Your task to perform on an android device: delete browsing data in the chrome app Image 0: 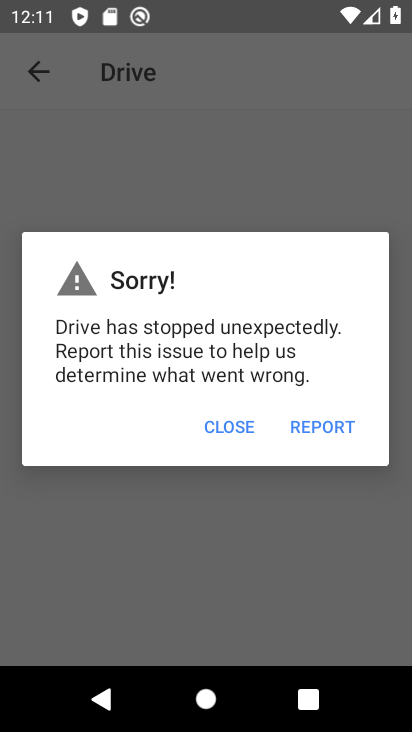
Step 0: click (234, 430)
Your task to perform on an android device: delete browsing data in the chrome app Image 1: 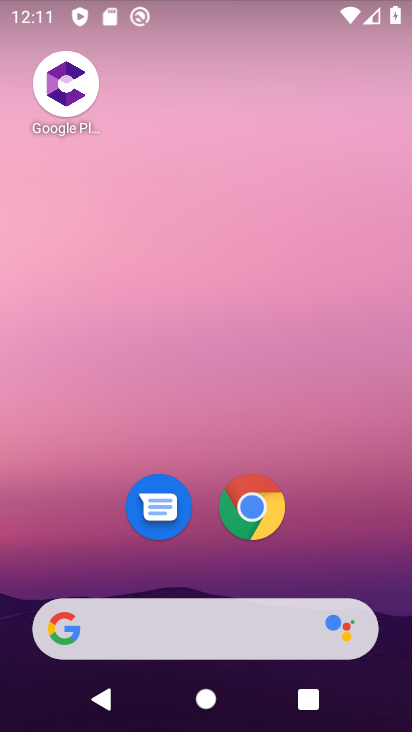
Step 1: click (257, 509)
Your task to perform on an android device: delete browsing data in the chrome app Image 2: 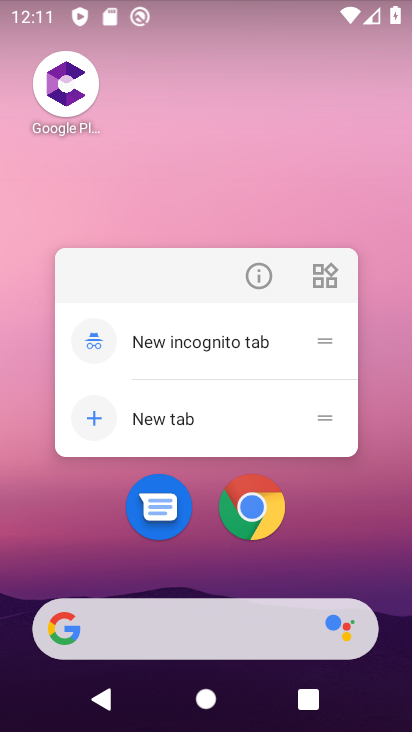
Step 2: click (257, 509)
Your task to perform on an android device: delete browsing data in the chrome app Image 3: 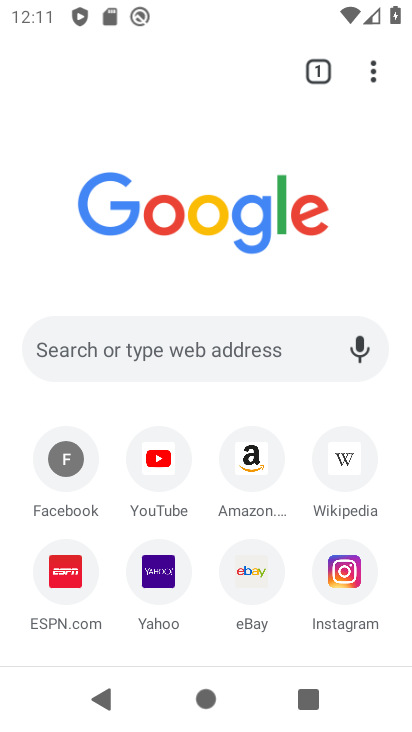
Step 3: click (377, 71)
Your task to perform on an android device: delete browsing data in the chrome app Image 4: 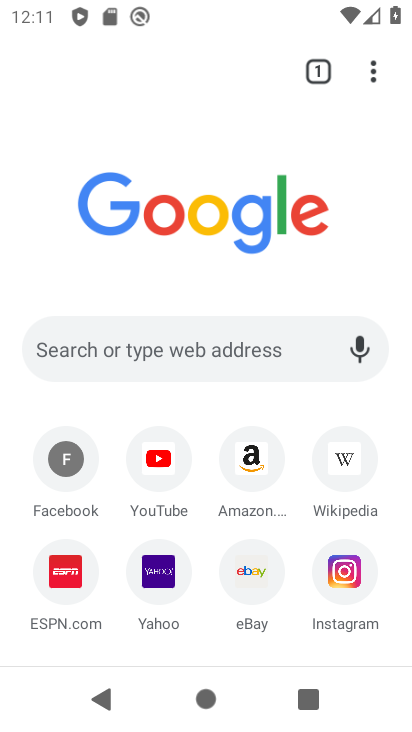
Step 4: click (372, 67)
Your task to perform on an android device: delete browsing data in the chrome app Image 5: 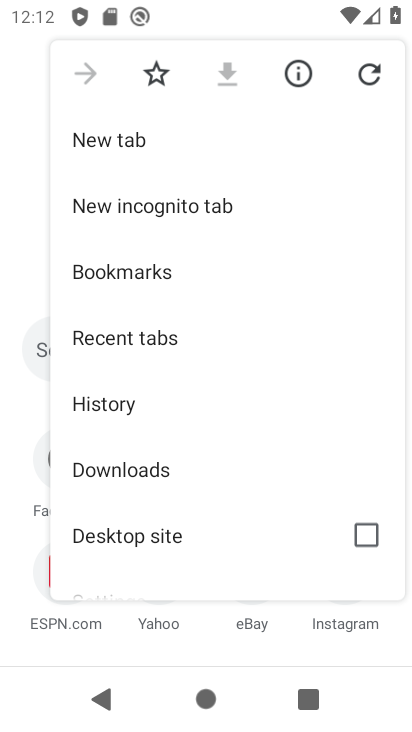
Step 5: drag from (204, 518) to (243, 166)
Your task to perform on an android device: delete browsing data in the chrome app Image 6: 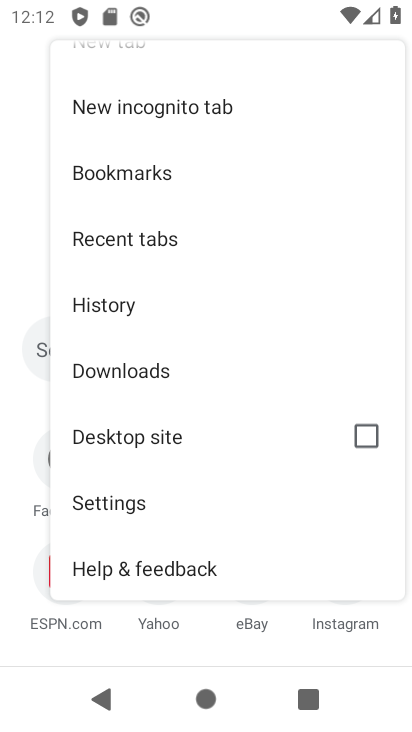
Step 6: click (114, 508)
Your task to perform on an android device: delete browsing data in the chrome app Image 7: 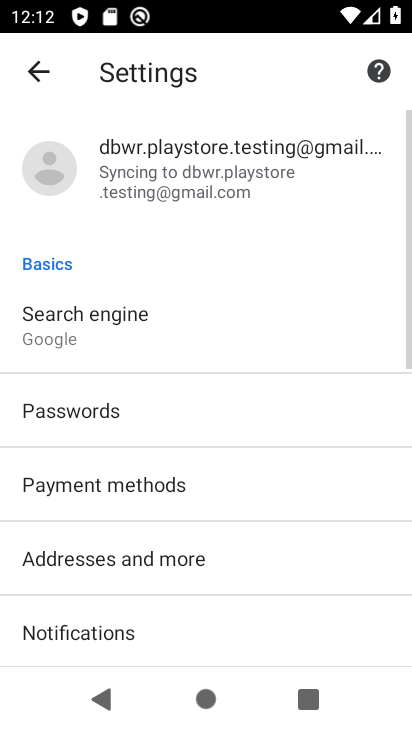
Step 7: drag from (127, 652) to (185, 296)
Your task to perform on an android device: delete browsing data in the chrome app Image 8: 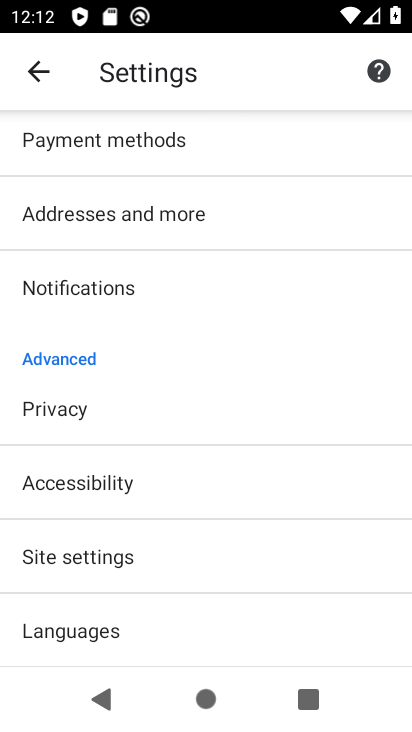
Step 8: click (59, 407)
Your task to perform on an android device: delete browsing data in the chrome app Image 9: 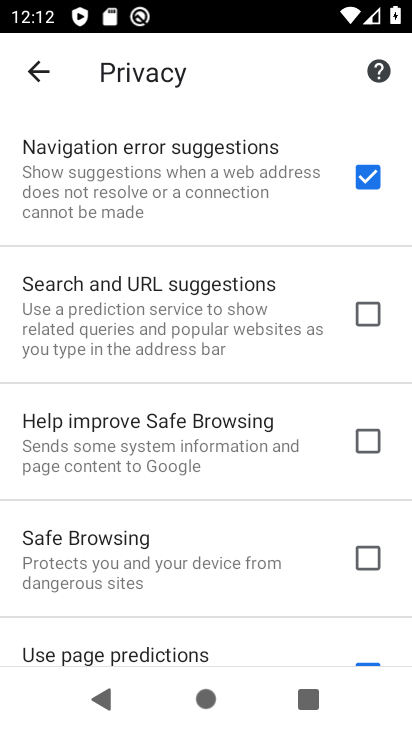
Step 9: drag from (203, 636) to (261, 258)
Your task to perform on an android device: delete browsing data in the chrome app Image 10: 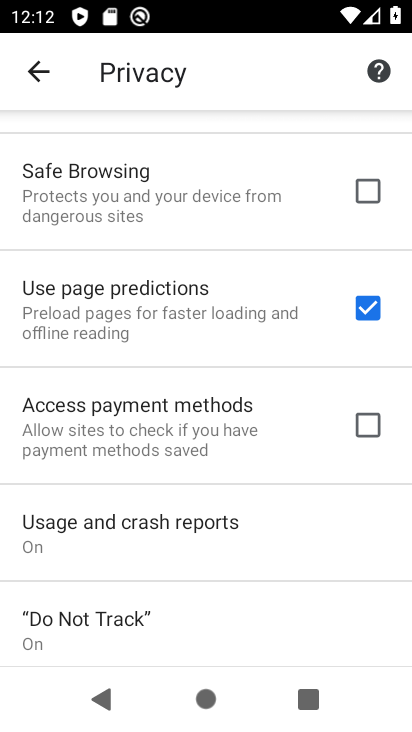
Step 10: drag from (136, 633) to (171, 286)
Your task to perform on an android device: delete browsing data in the chrome app Image 11: 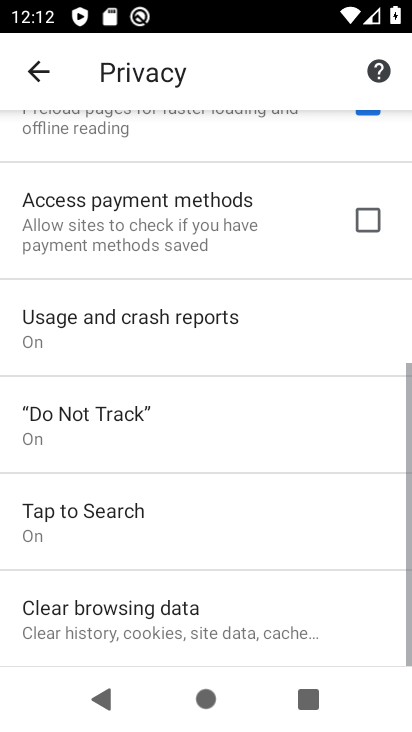
Step 11: click (164, 614)
Your task to perform on an android device: delete browsing data in the chrome app Image 12: 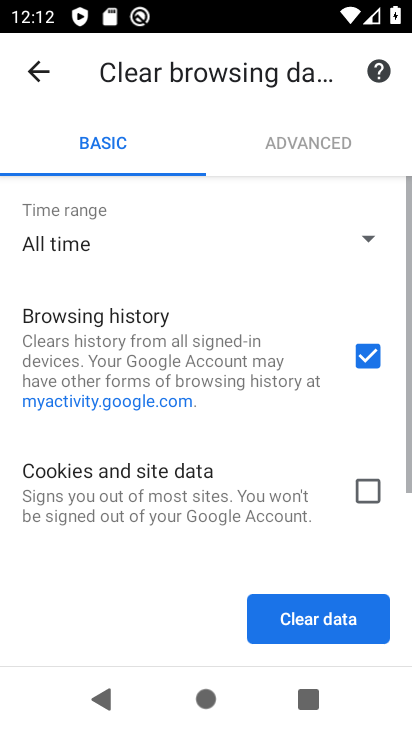
Step 12: click (370, 485)
Your task to perform on an android device: delete browsing data in the chrome app Image 13: 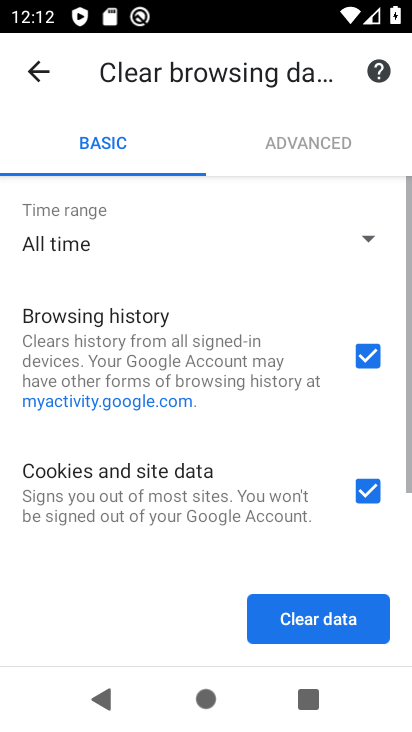
Step 13: drag from (233, 531) to (272, 183)
Your task to perform on an android device: delete browsing data in the chrome app Image 14: 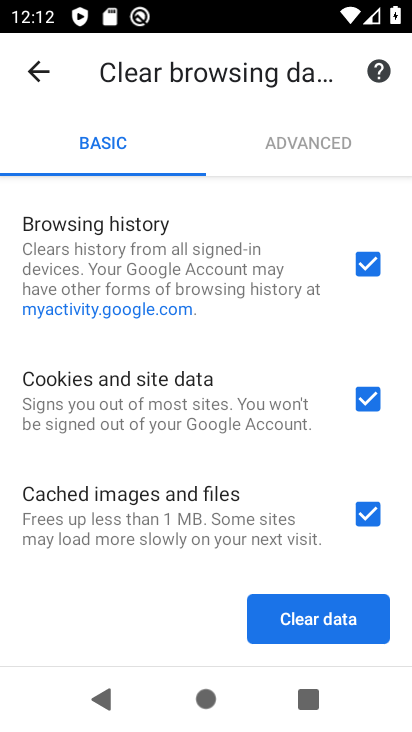
Step 14: click (314, 621)
Your task to perform on an android device: delete browsing data in the chrome app Image 15: 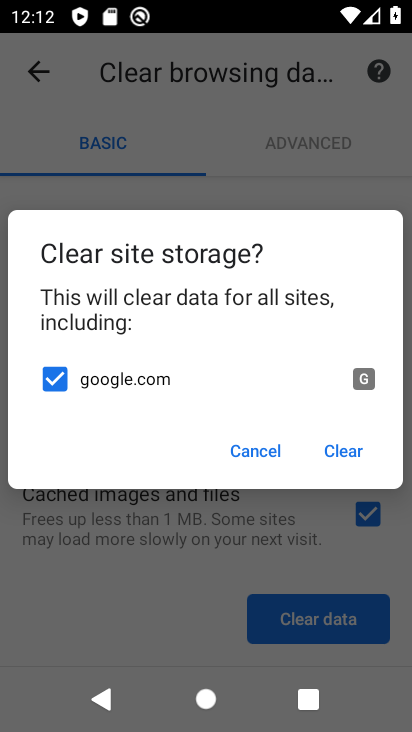
Step 15: click (361, 449)
Your task to perform on an android device: delete browsing data in the chrome app Image 16: 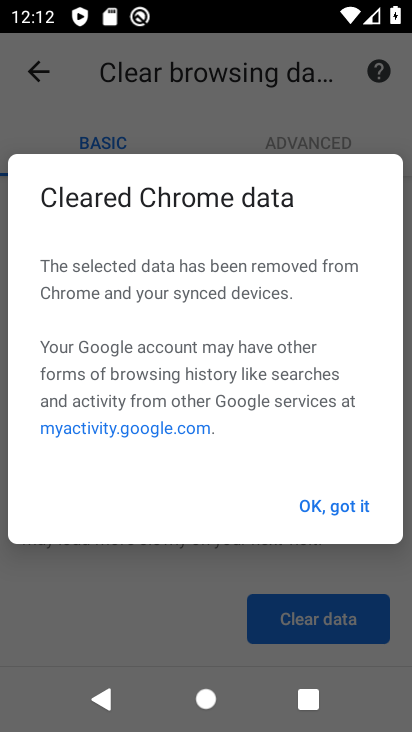
Step 16: click (320, 511)
Your task to perform on an android device: delete browsing data in the chrome app Image 17: 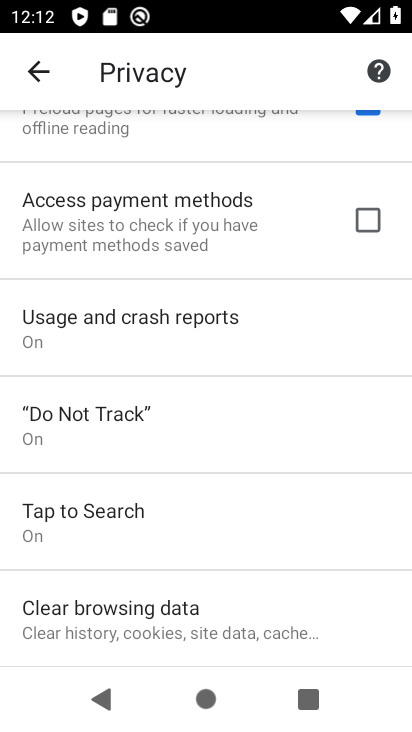
Step 17: task complete